Your task to perform on an android device: allow notifications from all sites in the chrome app Image 0: 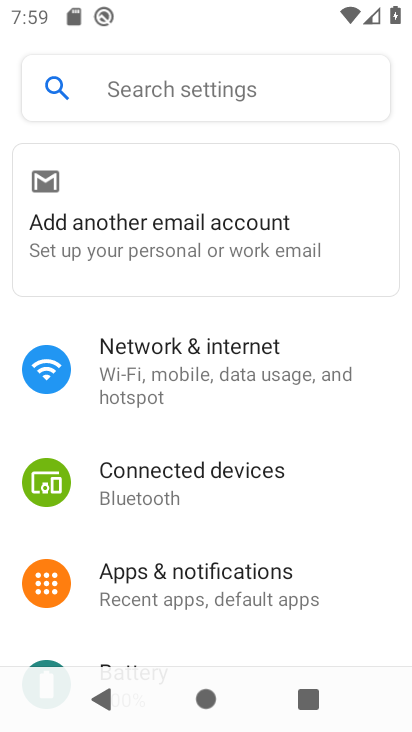
Step 0: press home button
Your task to perform on an android device: allow notifications from all sites in the chrome app Image 1: 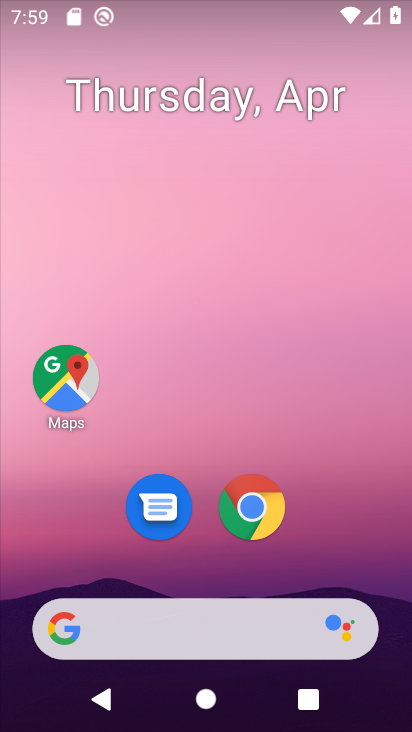
Step 1: drag from (336, 509) to (238, 33)
Your task to perform on an android device: allow notifications from all sites in the chrome app Image 2: 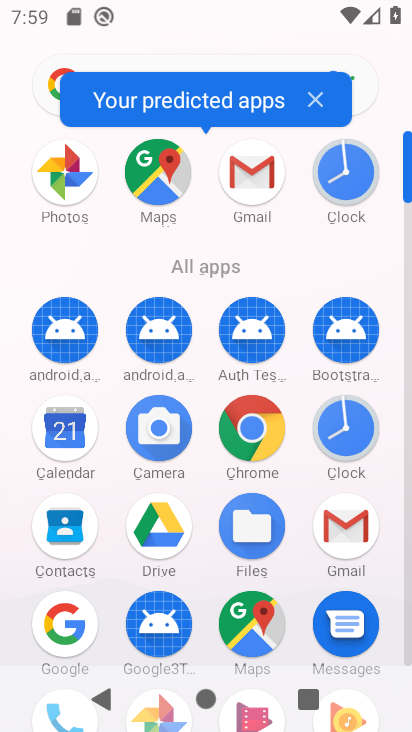
Step 2: click (253, 424)
Your task to perform on an android device: allow notifications from all sites in the chrome app Image 3: 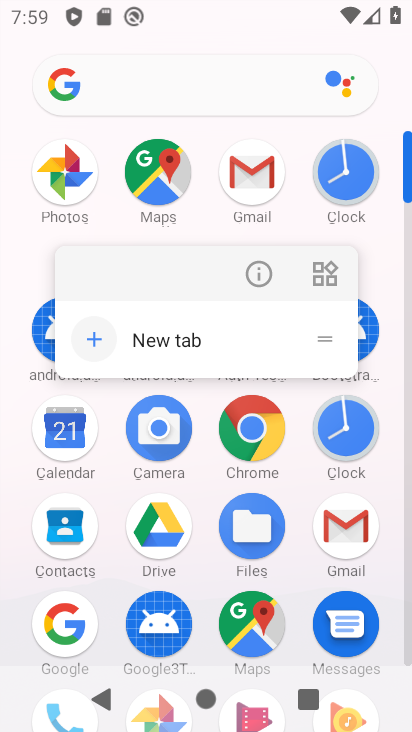
Step 3: click (397, 419)
Your task to perform on an android device: allow notifications from all sites in the chrome app Image 4: 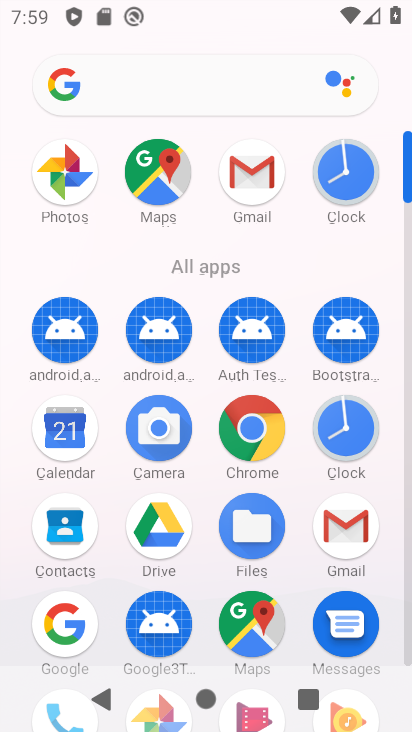
Step 4: click (245, 426)
Your task to perform on an android device: allow notifications from all sites in the chrome app Image 5: 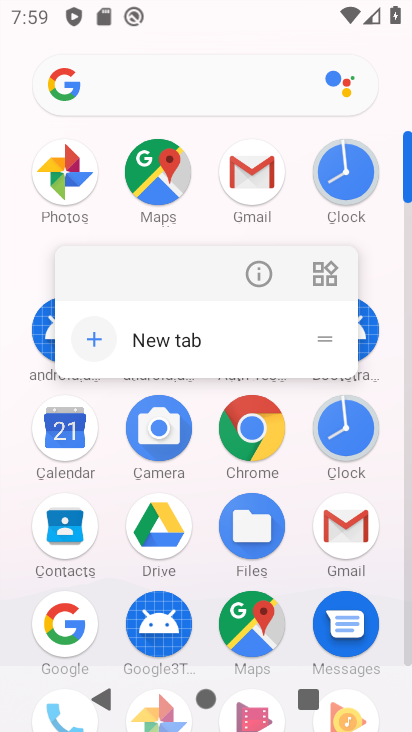
Step 5: click (240, 434)
Your task to perform on an android device: allow notifications from all sites in the chrome app Image 6: 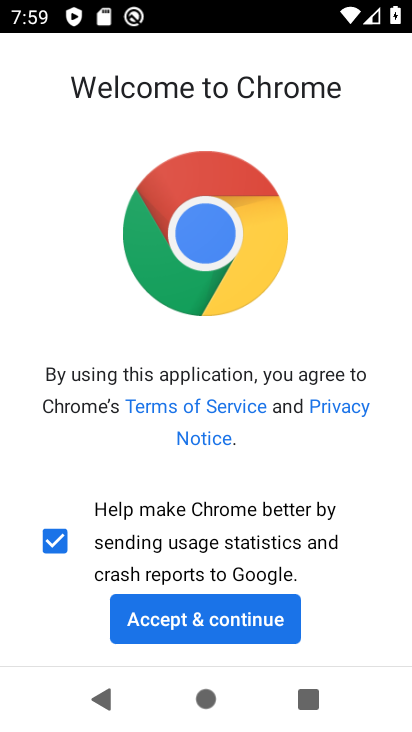
Step 6: click (206, 622)
Your task to perform on an android device: allow notifications from all sites in the chrome app Image 7: 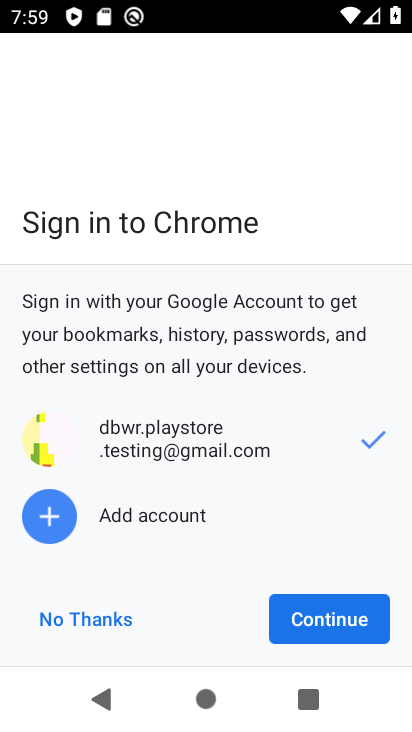
Step 7: click (321, 624)
Your task to perform on an android device: allow notifications from all sites in the chrome app Image 8: 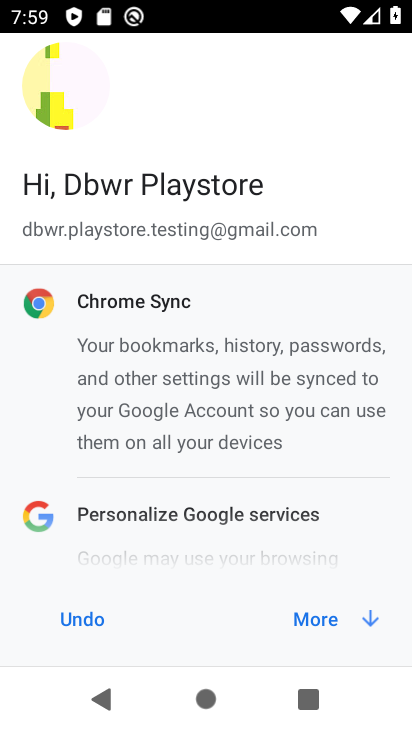
Step 8: click (321, 624)
Your task to perform on an android device: allow notifications from all sites in the chrome app Image 9: 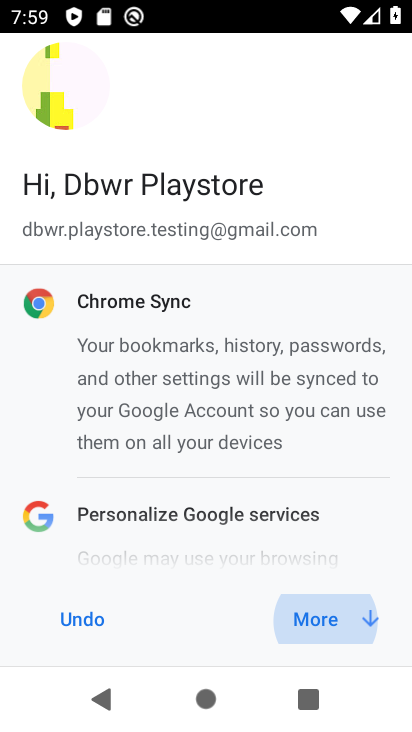
Step 9: click (317, 620)
Your task to perform on an android device: allow notifications from all sites in the chrome app Image 10: 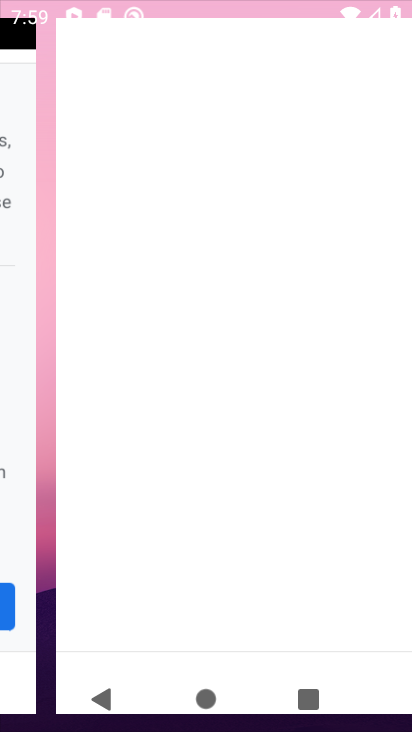
Step 10: click (312, 609)
Your task to perform on an android device: allow notifications from all sites in the chrome app Image 11: 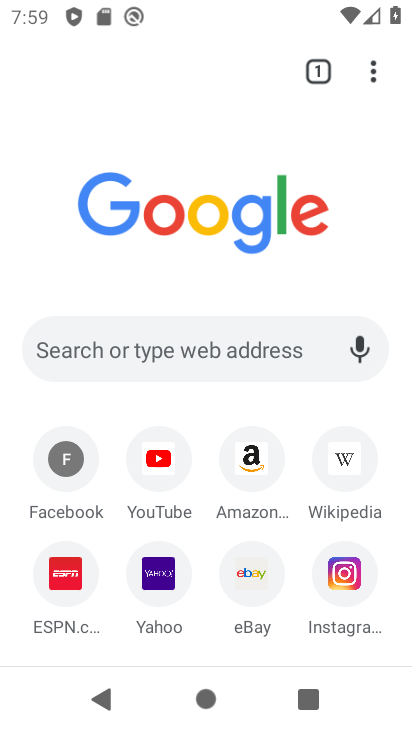
Step 11: drag from (371, 61) to (124, 506)
Your task to perform on an android device: allow notifications from all sites in the chrome app Image 12: 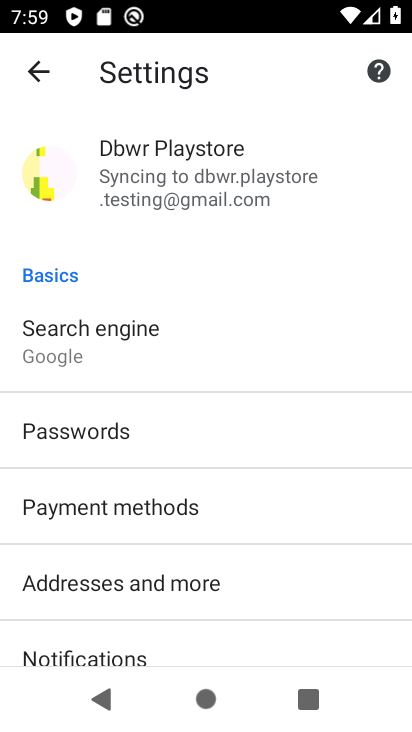
Step 12: drag from (205, 639) to (196, 160)
Your task to perform on an android device: allow notifications from all sites in the chrome app Image 13: 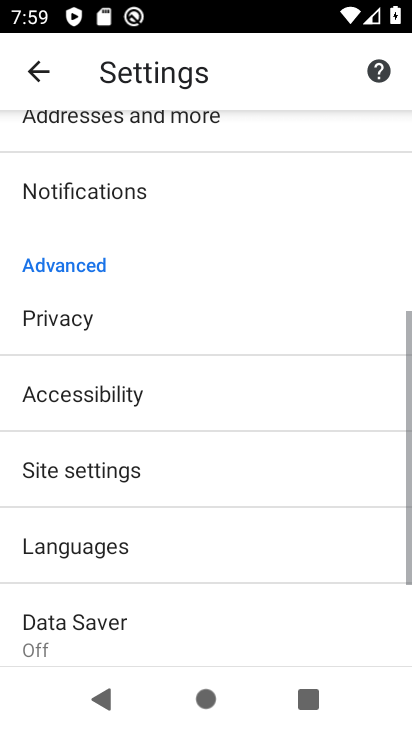
Step 13: click (183, 453)
Your task to perform on an android device: allow notifications from all sites in the chrome app Image 14: 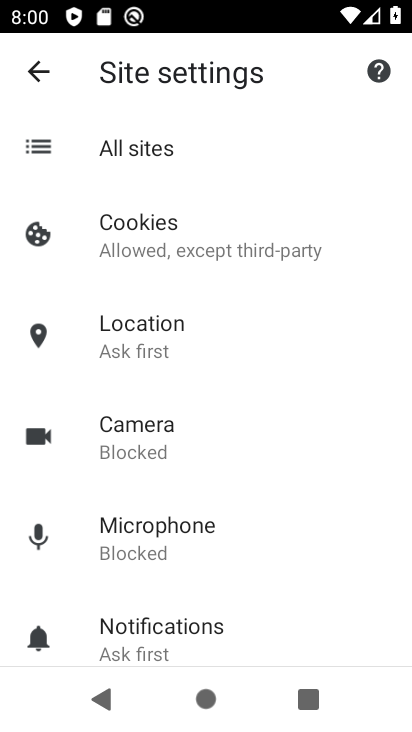
Step 14: click (141, 143)
Your task to perform on an android device: allow notifications from all sites in the chrome app Image 15: 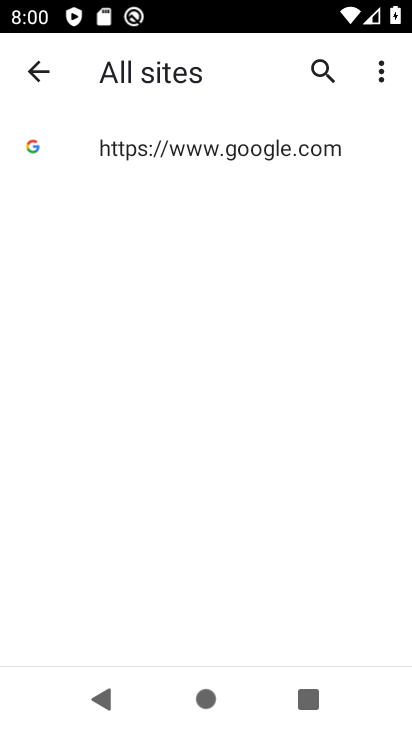
Step 15: click (141, 143)
Your task to perform on an android device: allow notifications from all sites in the chrome app Image 16: 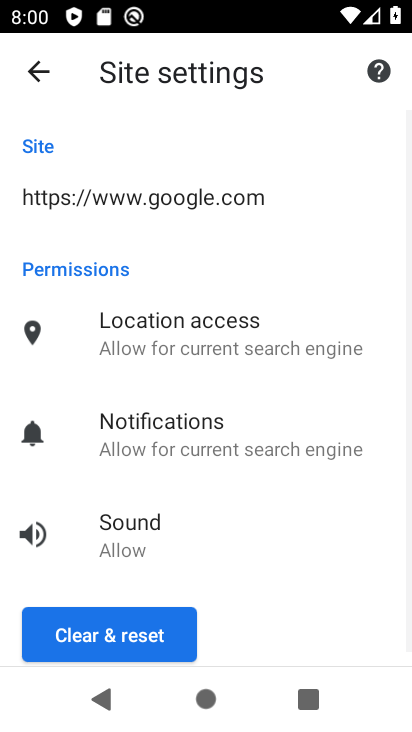
Step 16: click (214, 451)
Your task to perform on an android device: allow notifications from all sites in the chrome app Image 17: 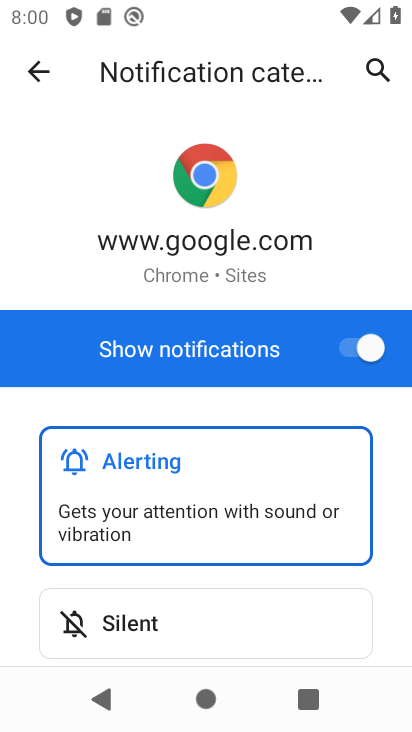
Step 17: task complete